Your task to perform on an android device: visit the assistant section in the google photos Image 0: 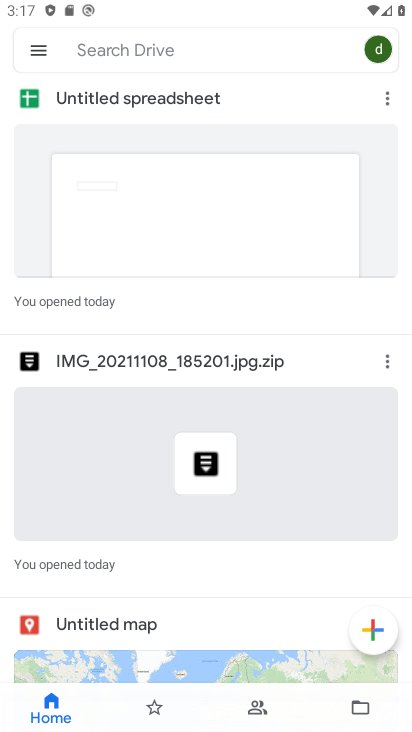
Step 0: press home button
Your task to perform on an android device: visit the assistant section in the google photos Image 1: 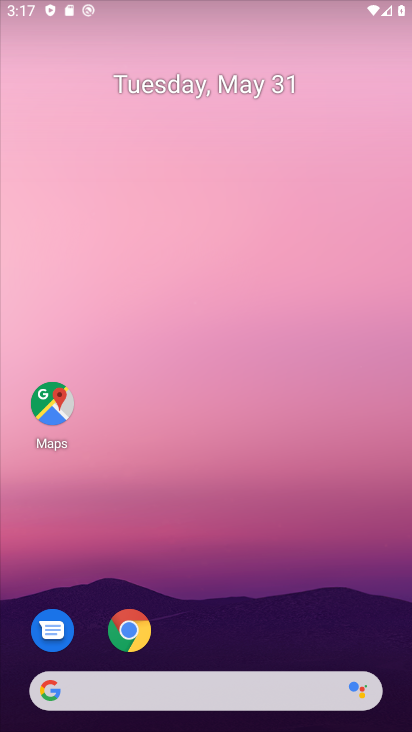
Step 1: drag from (284, 437) to (335, 6)
Your task to perform on an android device: visit the assistant section in the google photos Image 2: 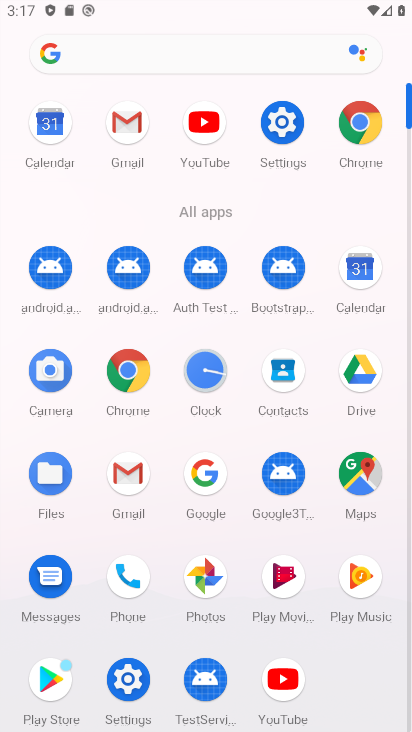
Step 2: click (198, 577)
Your task to perform on an android device: visit the assistant section in the google photos Image 3: 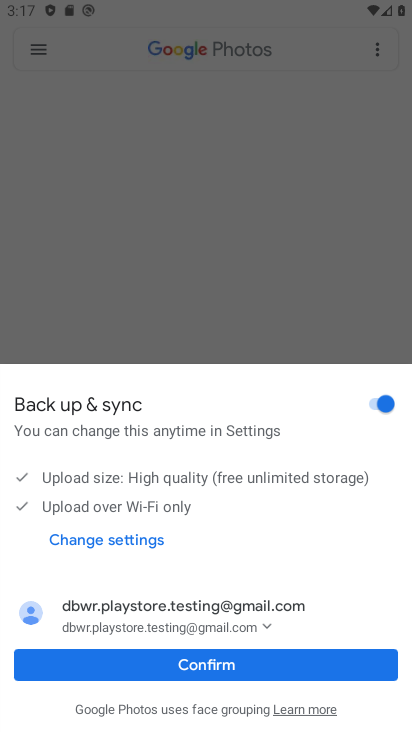
Step 3: drag from (296, 666) to (389, 666)
Your task to perform on an android device: visit the assistant section in the google photos Image 4: 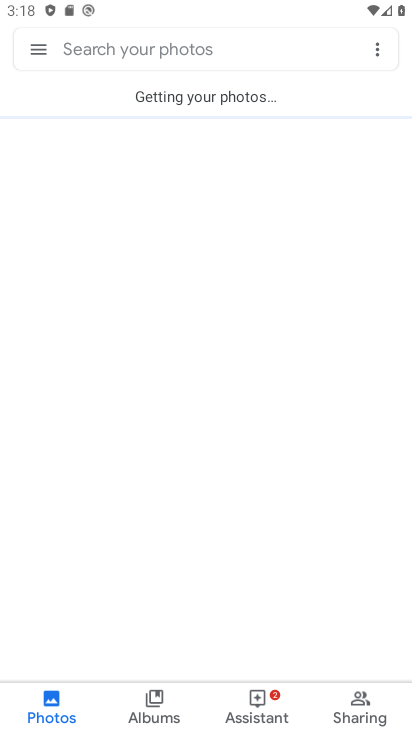
Step 4: click (263, 700)
Your task to perform on an android device: visit the assistant section in the google photos Image 5: 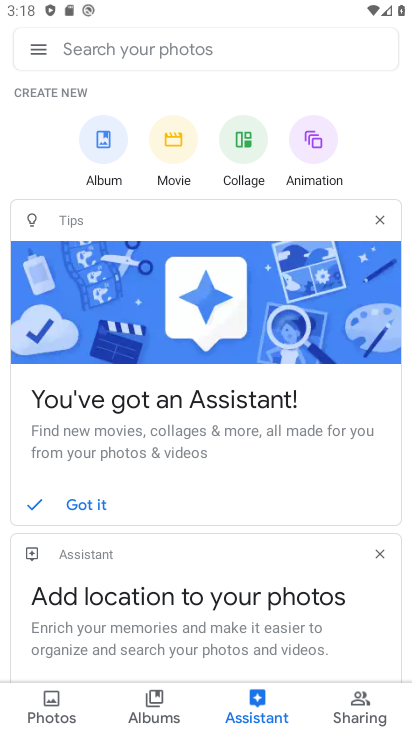
Step 5: task complete